Your task to perform on an android device: Do I have any events tomorrow? Image 0: 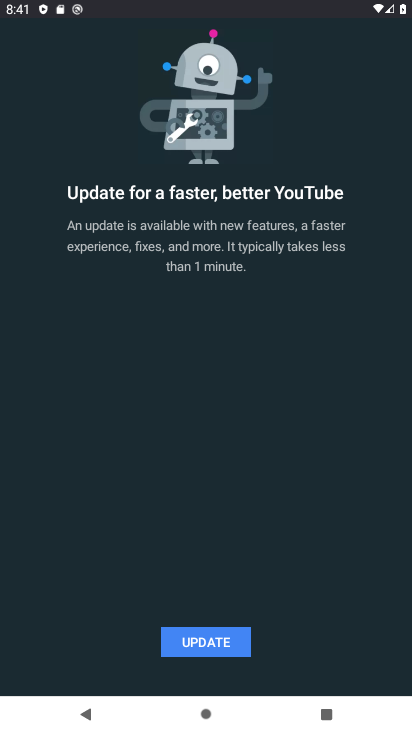
Step 0: press home button
Your task to perform on an android device: Do I have any events tomorrow? Image 1: 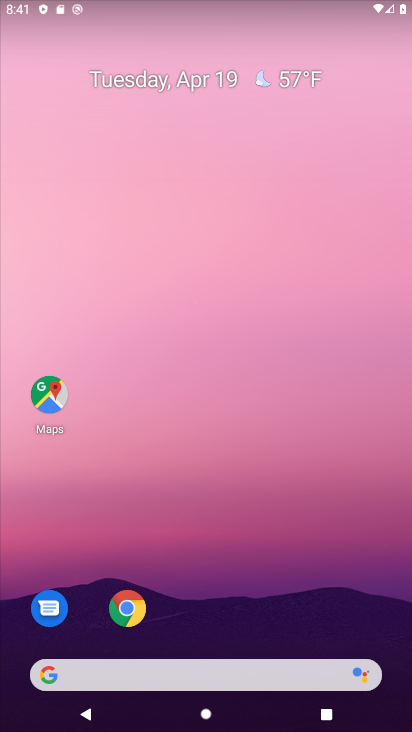
Step 1: drag from (233, 549) to (226, 261)
Your task to perform on an android device: Do I have any events tomorrow? Image 2: 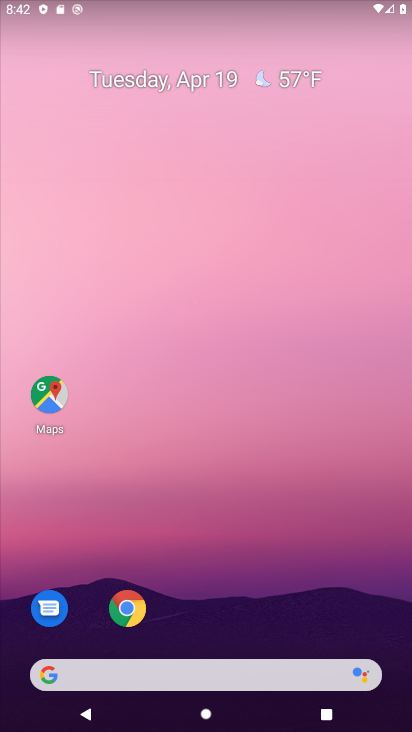
Step 2: drag from (217, 588) to (201, 28)
Your task to perform on an android device: Do I have any events tomorrow? Image 3: 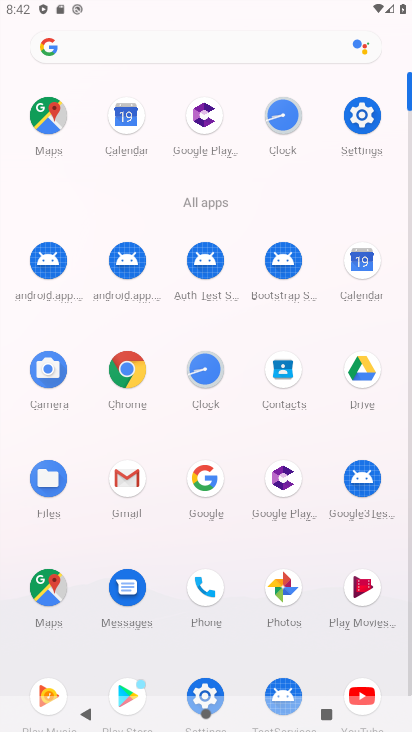
Step 3: click (365, 257)
Your task to perform on an android device: Do I have any events tomorrow? Image 4: 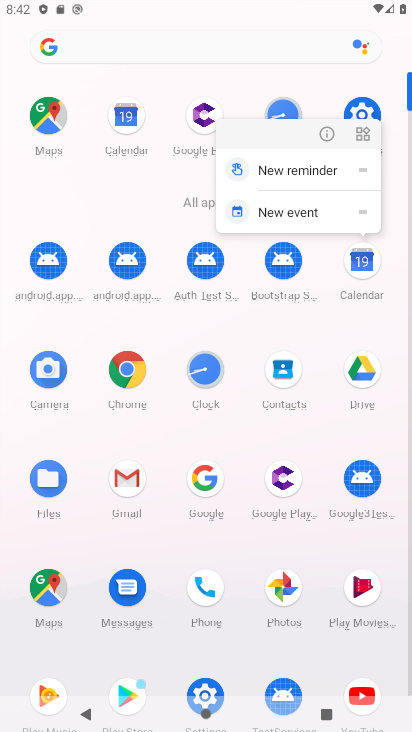
Step 4: click (363, 257)
Your task to perform on an android device: Do I have any events tomorrow? Image 5: 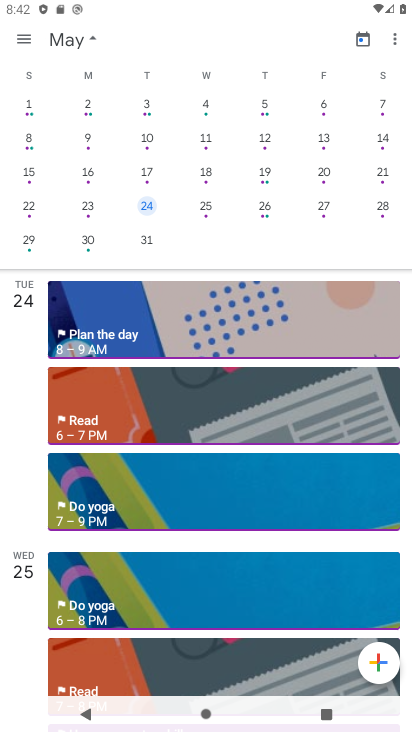
Step 5: drag from (16, 239) to (368, 254)
Your task to perform on an android device: Do I have any events tomorrow? Image 6: 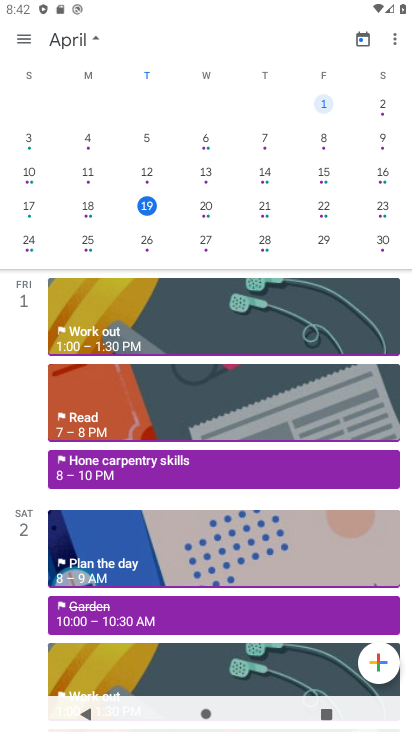
Step 6: click (29, 41)
Your task to perform on an android device: Do I have any events tomorrow? Image 7: 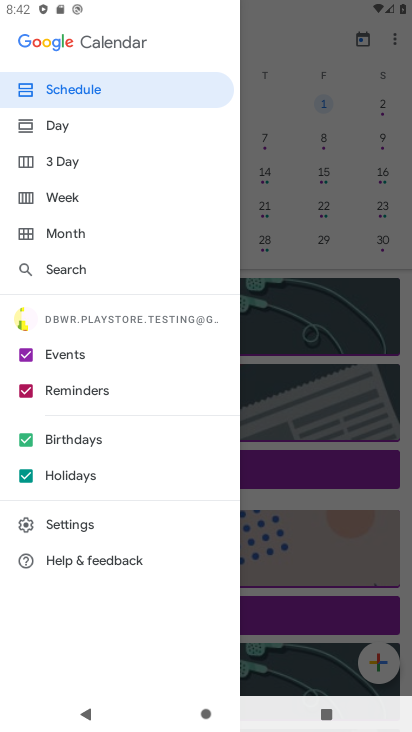
Step 7: click (150, 355)
Your task to perform on an android device: Do I have any events tomorrow? Image 8: 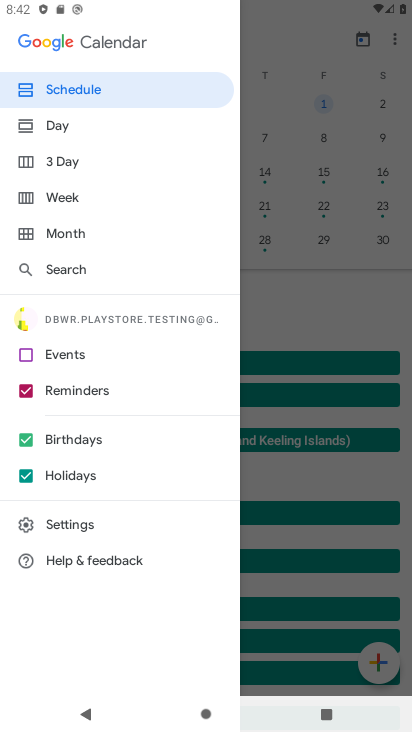
Step 8: click (342, 313)
Your task to perform on an android device: Do I have any events tomorrow? Image 9: 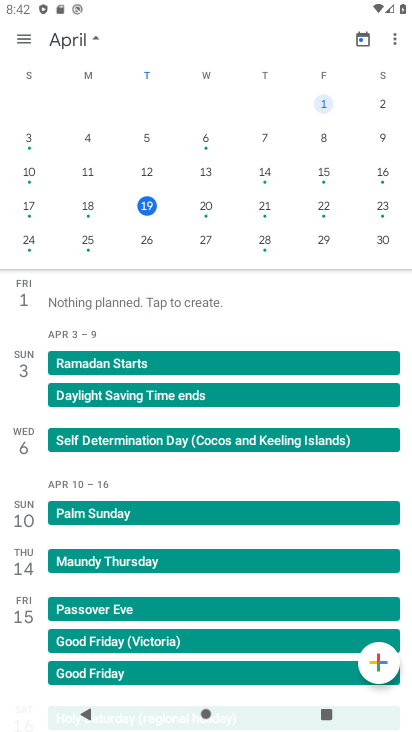
Step 9: drag from (200, 585) to (227, 98)
Your task to perform on an android device: Do I have any events tomorrow? Image 10: 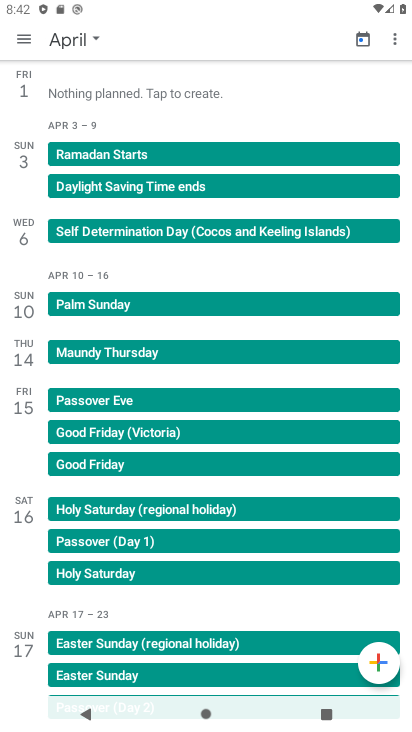
Step 10: drag from (141, 611) to (187, 239)
Your task to perform on an android device: Do I have any events tomorrow? Image 11: 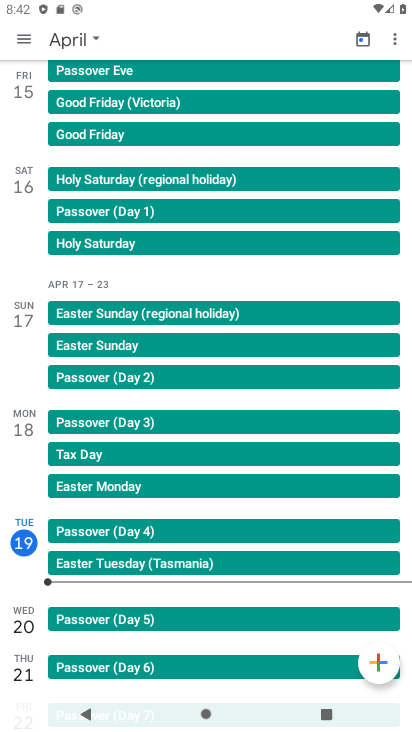
Step 11: click (135, 529)
Your task to perform on an android device: Do I have any events tomorrow? Image 12: 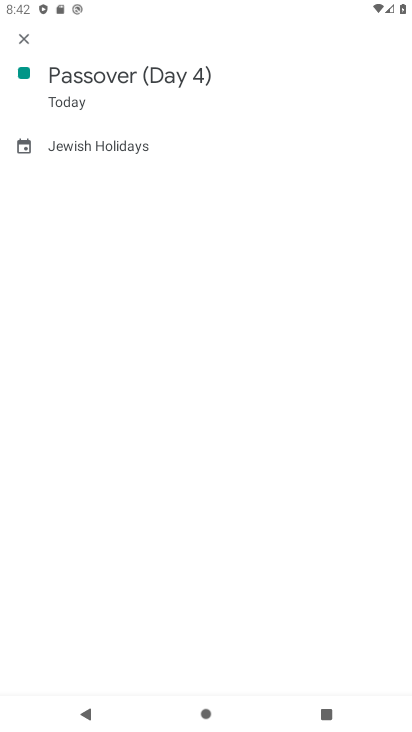
Step 12: task complete